Your task to perform on an android device: What's the weather going to be tomorrow? Image 0: 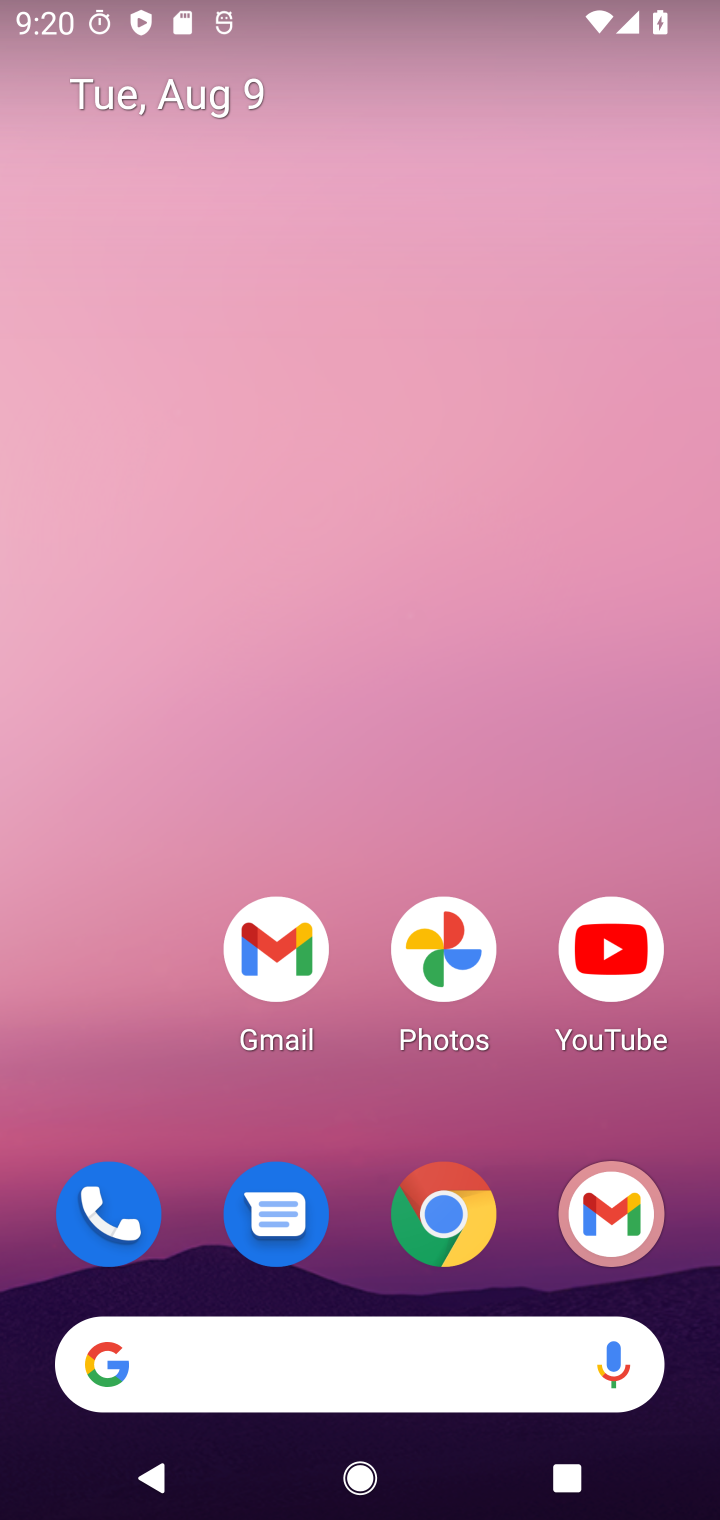
Step 0: click (171, 1364)
Your task to perform on an android device: What's the weather going to be tomorrow? Image 1: 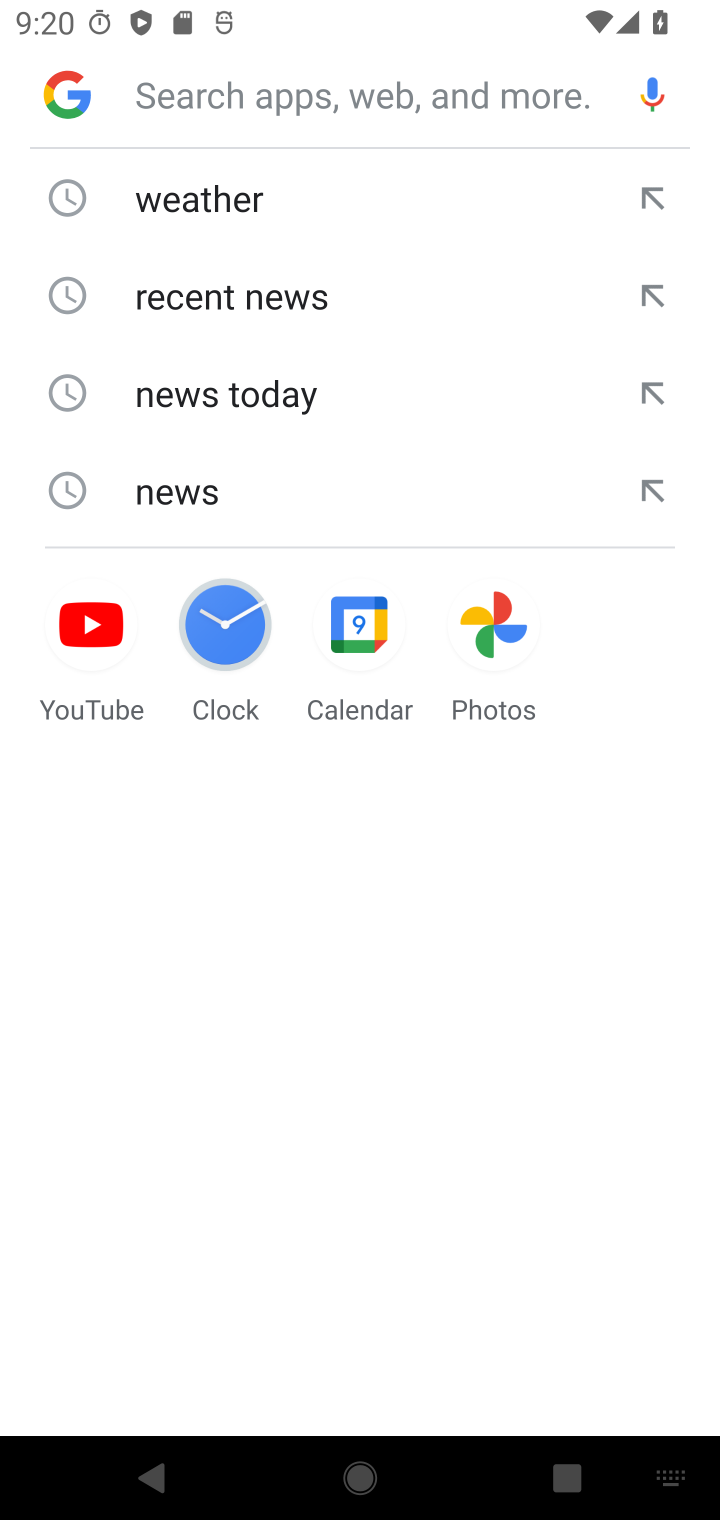
Step 1: type "What's the weather going to be tomorrow?"
Your task to perform on an android device: What's the weather going to be tomorrow? Image 2: 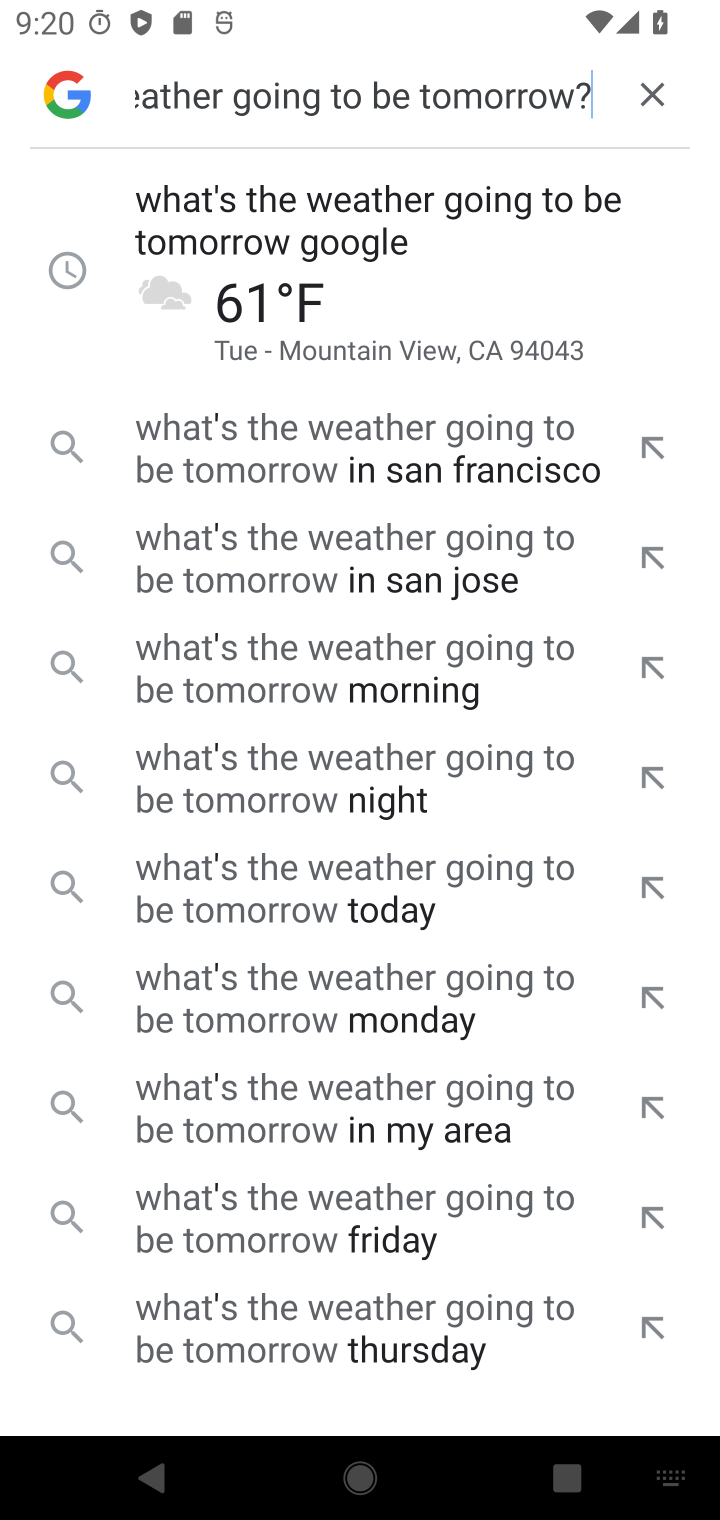
Step 2: task complete